Your task to perform on an android device: Open my contact list Image 0: 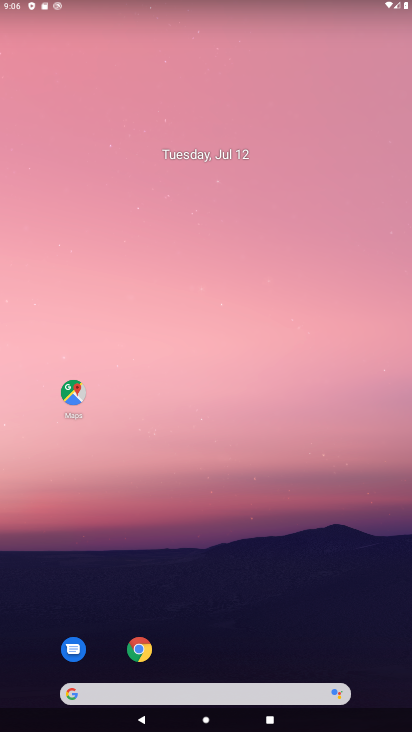
Step 0: drag from (251, 647) to (269, 130)
Your task to perform on an android device: Open my contact list Image 1: 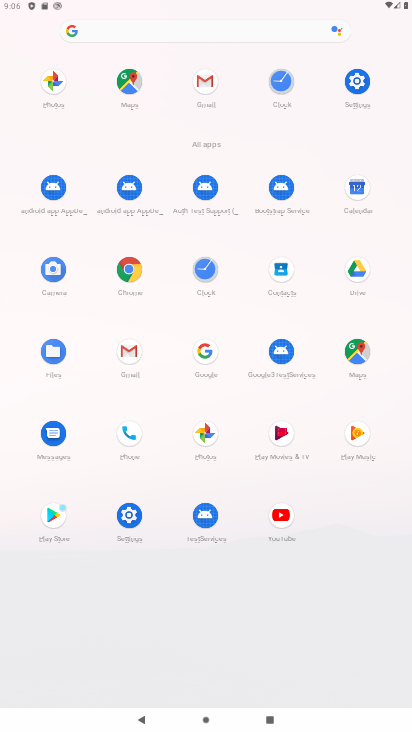
Step 1: click (273, 261)
Your task to perform on an android device: Open my contact list Image 2: 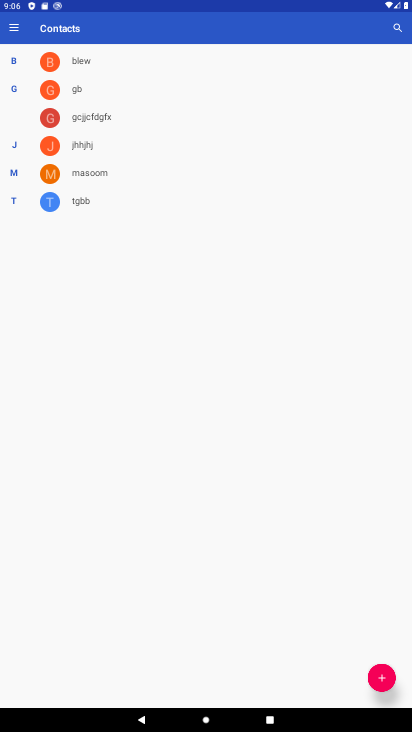
Step 2: task complete